Your task to perform on an android device: change the clock display to digital Image 0: 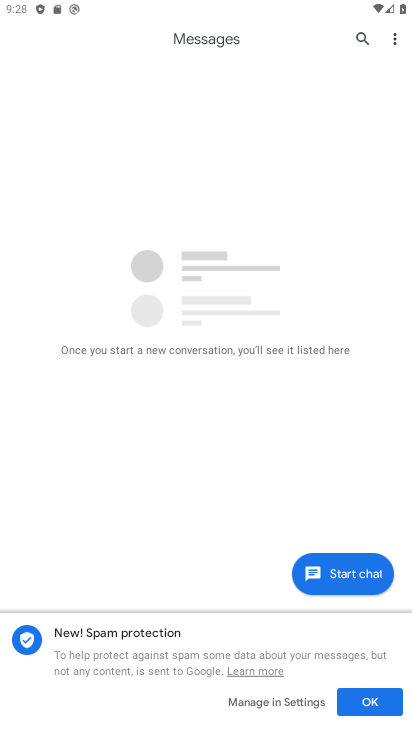
Step 0: press home button
Your task to perform on an android device: change the clock display to digital Image 1: 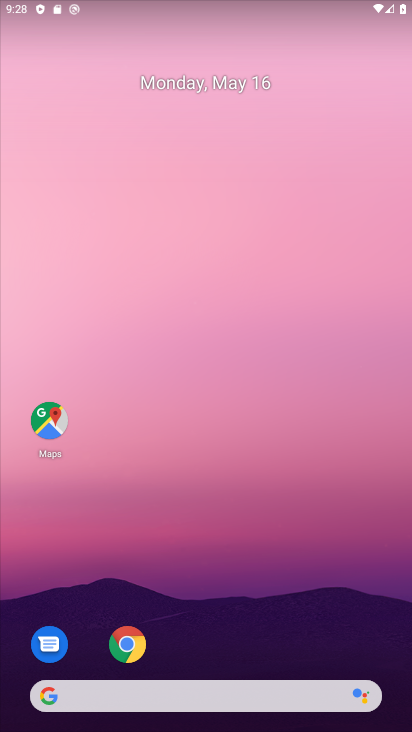
Step 1: drag from (186, 688) to (157, 134)
Your task to perform on an android device: change the clock display to digital Image 2: 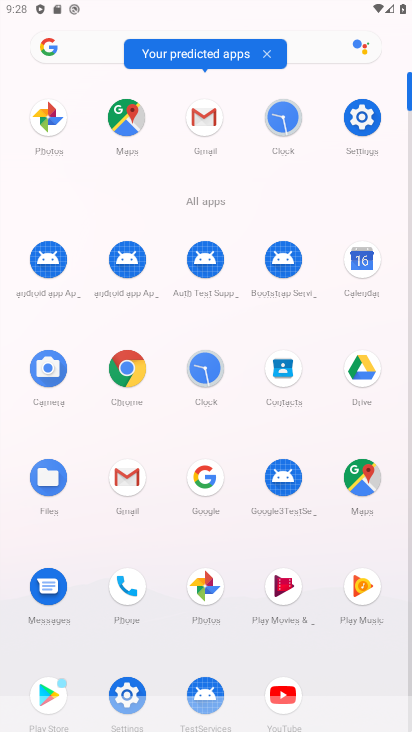
Step 2: click (206, 377)
Your task to perform on an android device: change the clock display to digital Image 3: 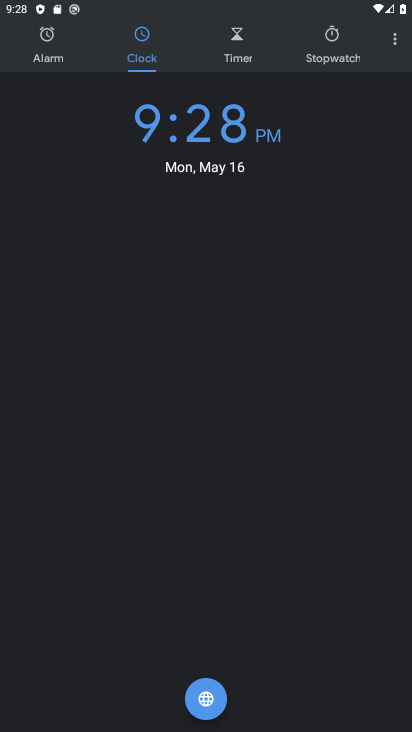
Step 3: click (395, 37)
Your task to perform on an android device: change the clock display to digital Image 4: 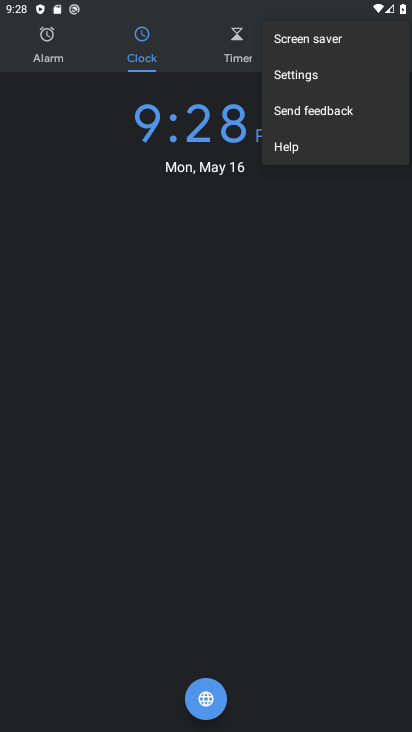
Step 4: click (324, 75)
Your task to perform on an android device: change the clock display to digital Image 5: 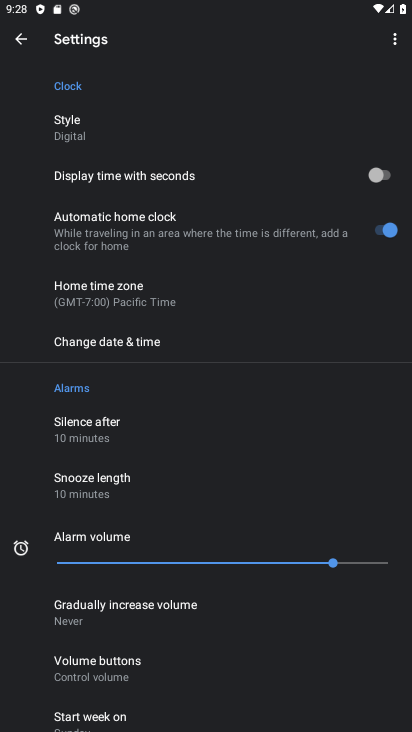
Step 5: click (108, 129)
Your task to perform on an android device: change the clock display to digital Image 6: 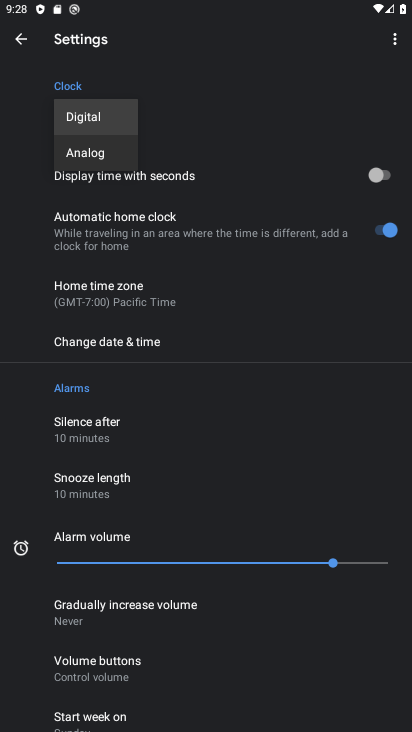
Step 6: click (88, 131)
Your task to perform on an android device: change the clock display to digital Image 7: 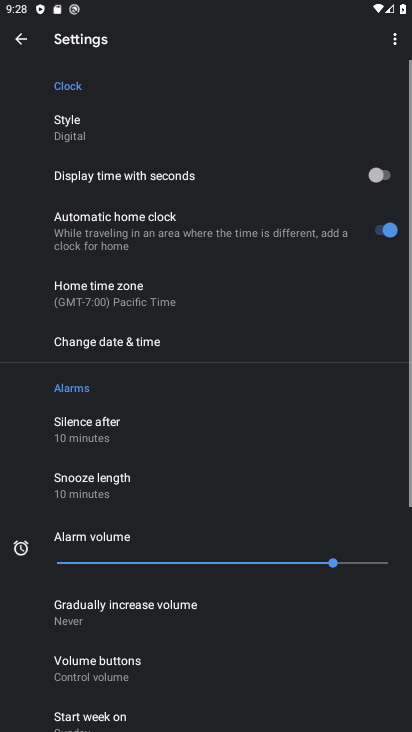
Step 7: task complete